Your task to perform on an android device: Go to location settings Image 0: 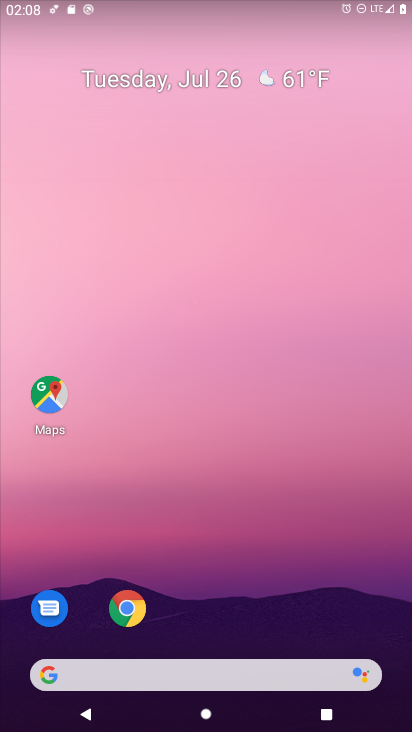
Step 0: drag from (31, 720) to (148, 275)
Your task to perform on an android device: Go to location settings Image 1: 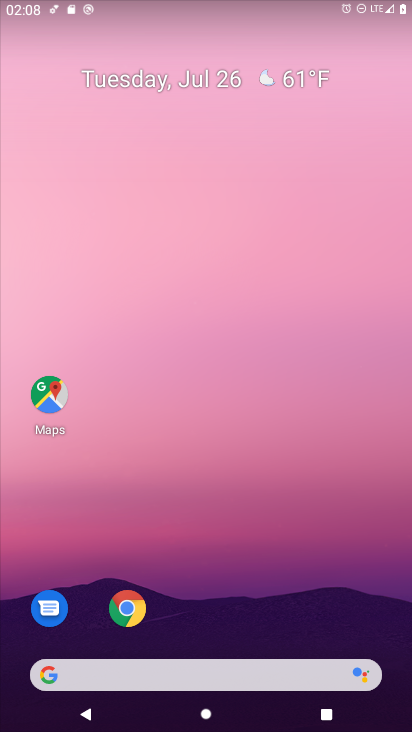
Step 1: drag from (58, 537) to (271, 133)
Your task to perform on an android device: Go to location settings Image 2: 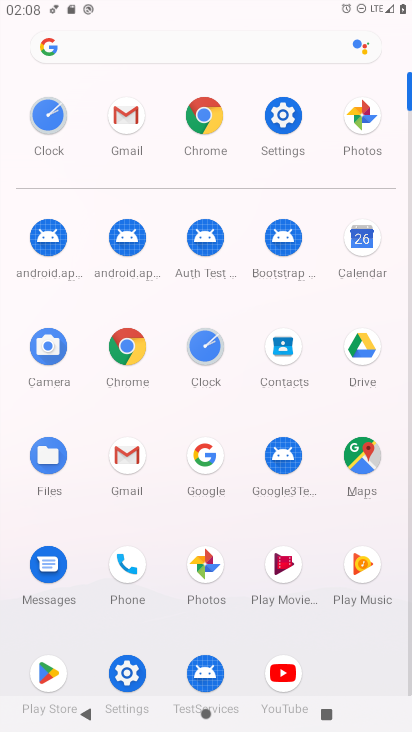
Step 2: click (276, 112)
Your task to perform on an android device: Go to location settings Image 3: 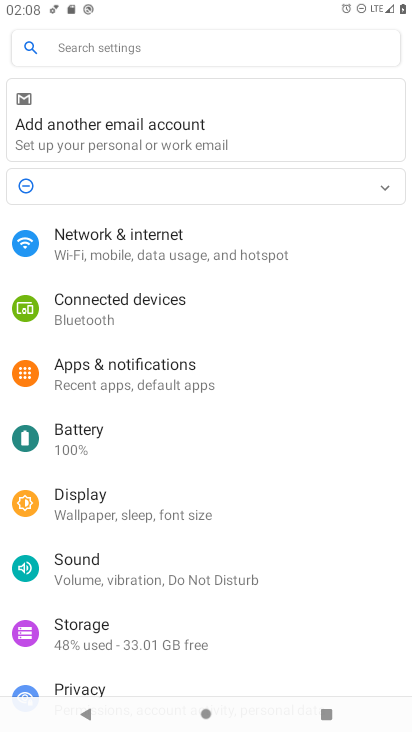
Step 3: drag from (29, 520) to (184, 276)
Your task to perform on an android device: Go to location settings Image 4: 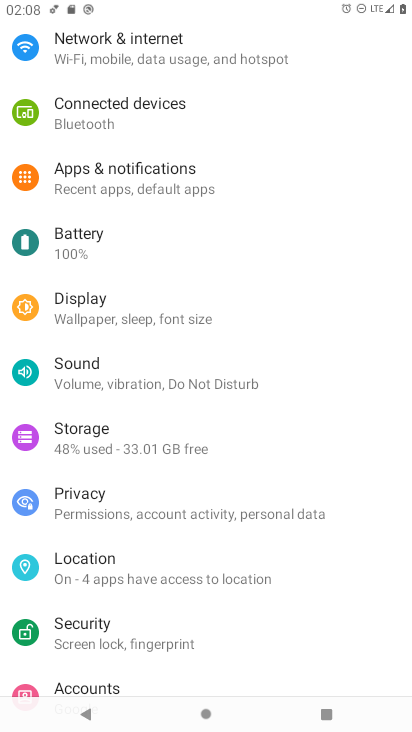
Step 4: click (72, 567)
Your task to perform on an android device: Go to location settings Image 5: 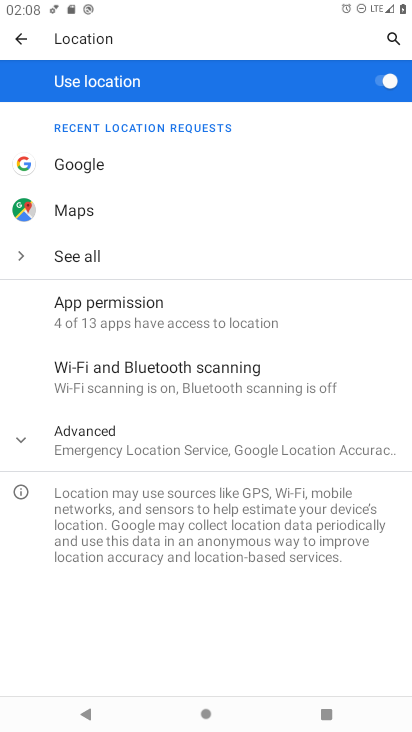
Step 5: task complete